Your task to perform on an android device: Go to network settings Image 0: 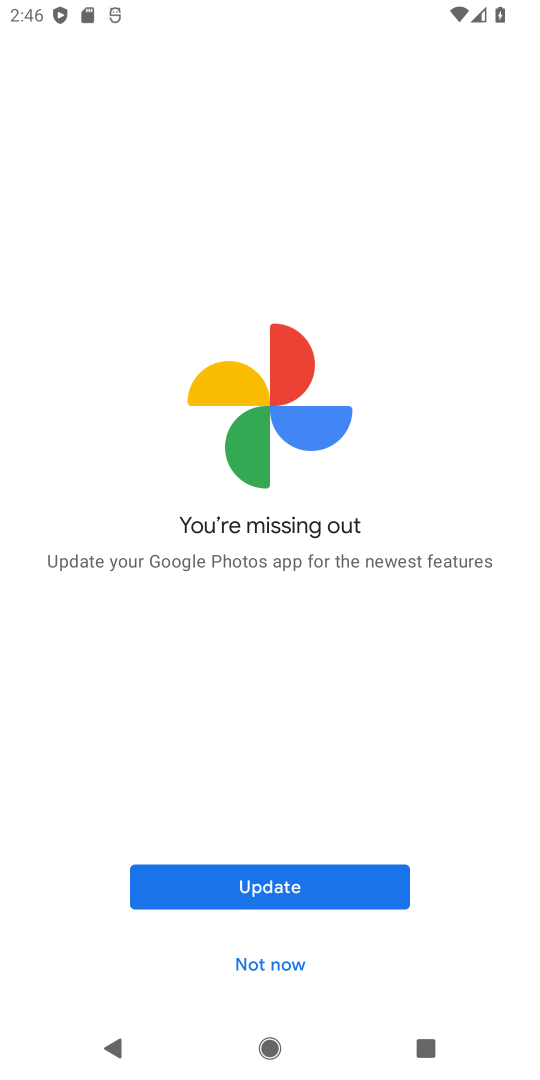
Step 0: press home button
Your task to perform on an android device: Go to network settings Image 1: 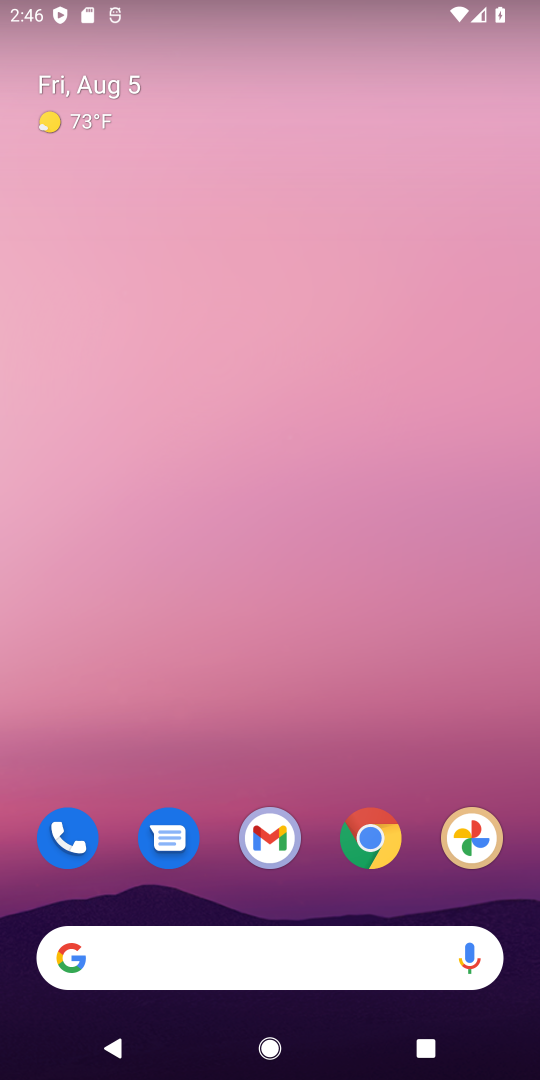
Step 1: drag from (265, 967) to (310, 131)
Your task to perform on an android device: Go to network settings Image 2: 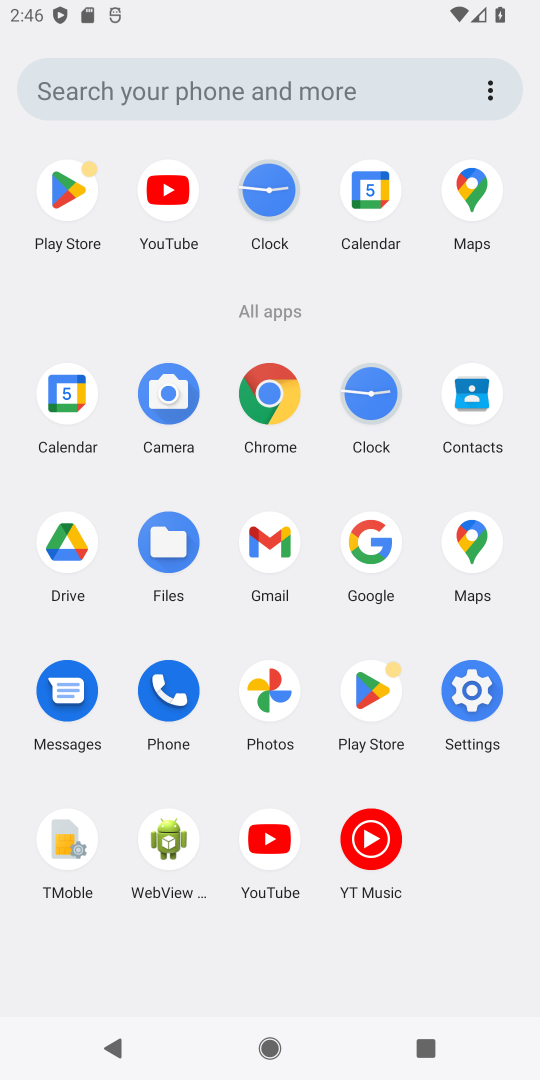
Step 2: click (464, 679)
Your task to perform on an android device: Go to network settings Image 3: 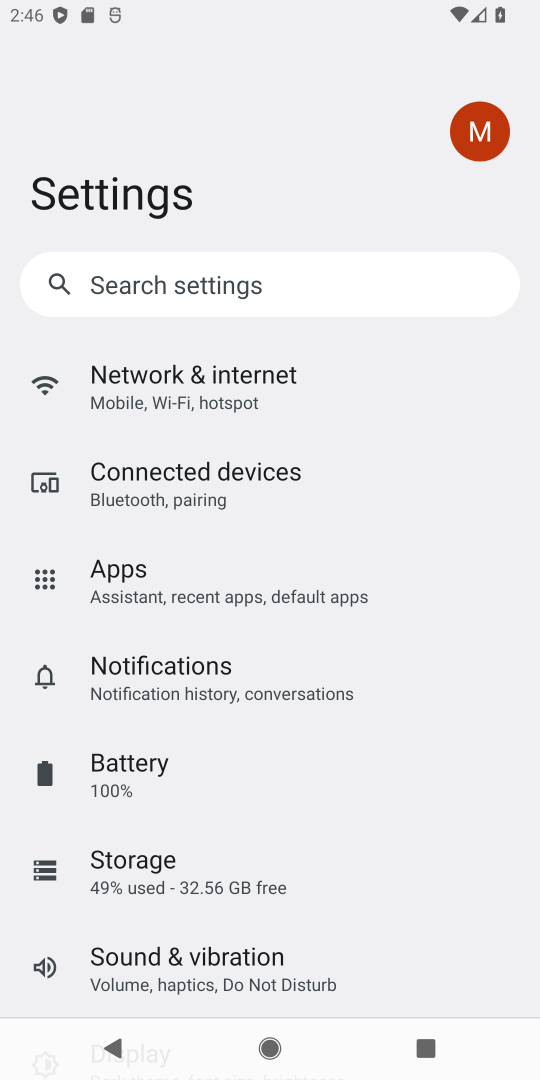
Step 3: click (165, 394)
Your task to perform on an android device: Go to network settings Image 4: 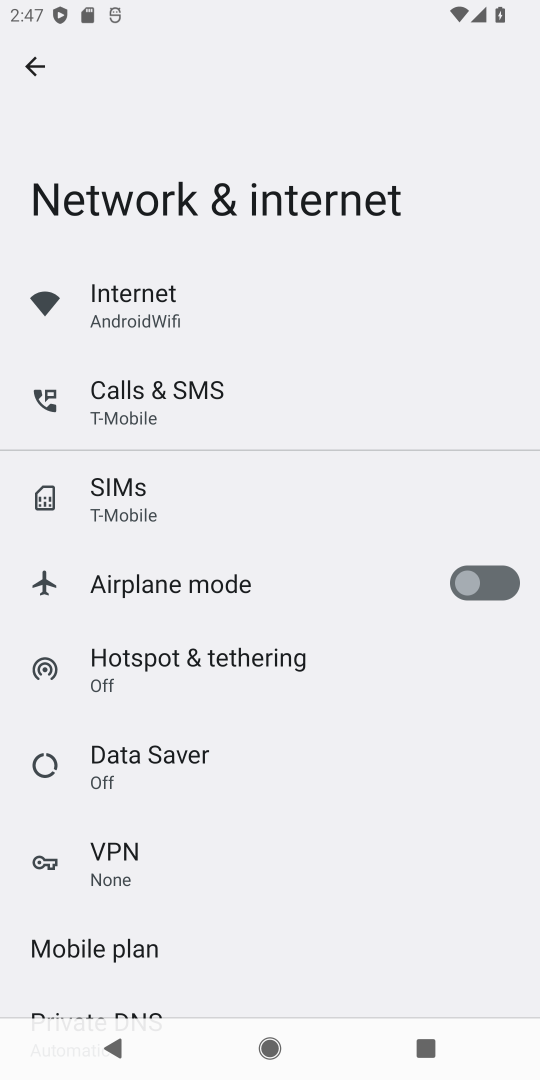
Step 4: task complete